Your task to perform on an android device: Open Maps and search for coffee Image 0: 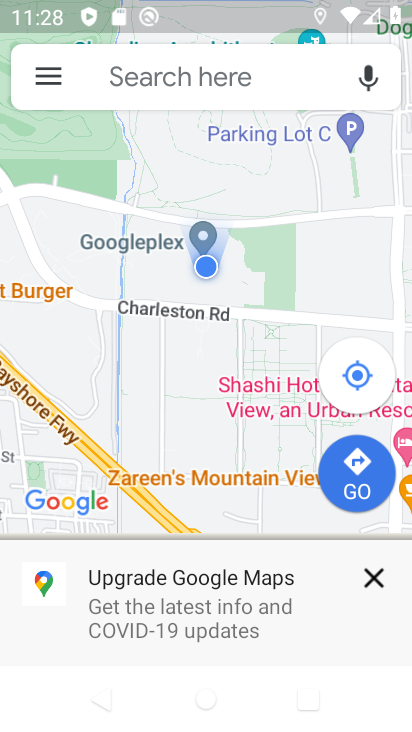
Step 0: click (184, 83)
Your task to perform on an android device: Open Maps and search for coffee Image 1: 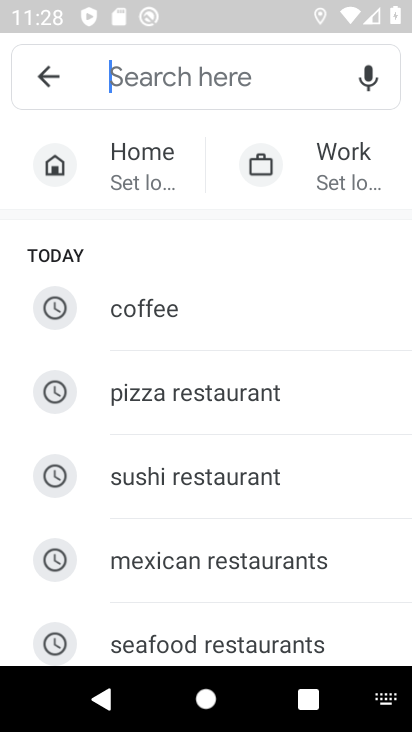
Step 1: click (269, 301)
Your task to perform on an android device: Open Maps and search for coffee Image 2: 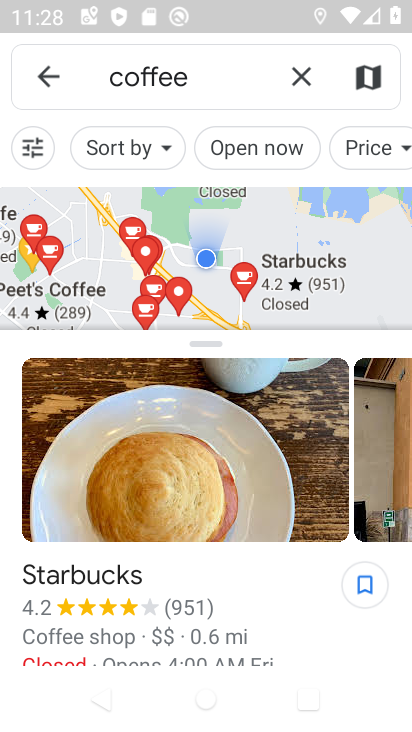
Step 2: task complete